Your task to perform on an android device: add a contact in the contacts app Image 0: 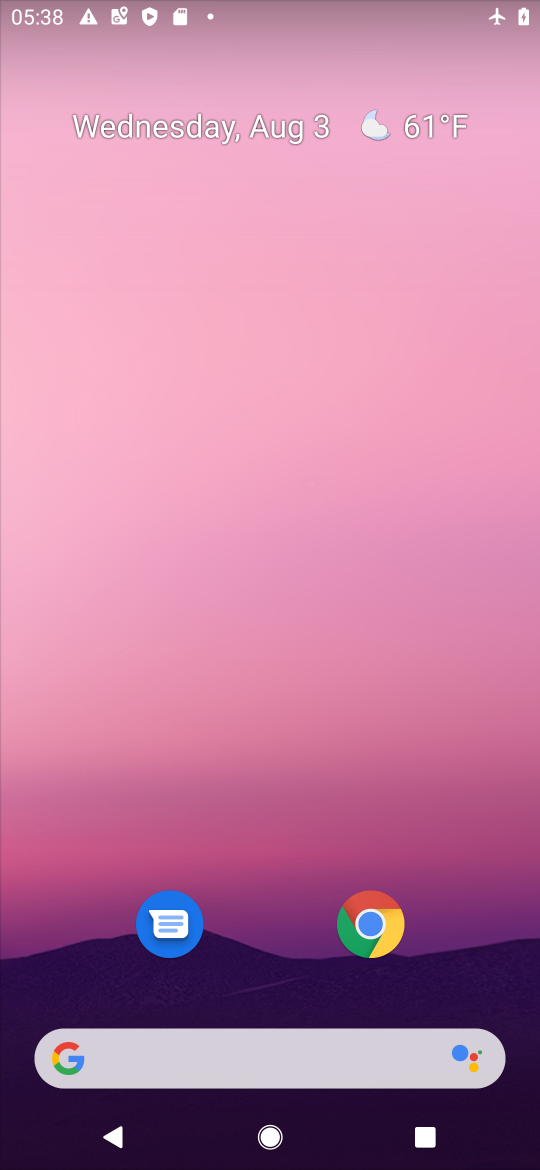
Step 0: drag from (243, 959) to (252, 269)
Your task to perform on an android device: add a contact in the contacts app Image 1: 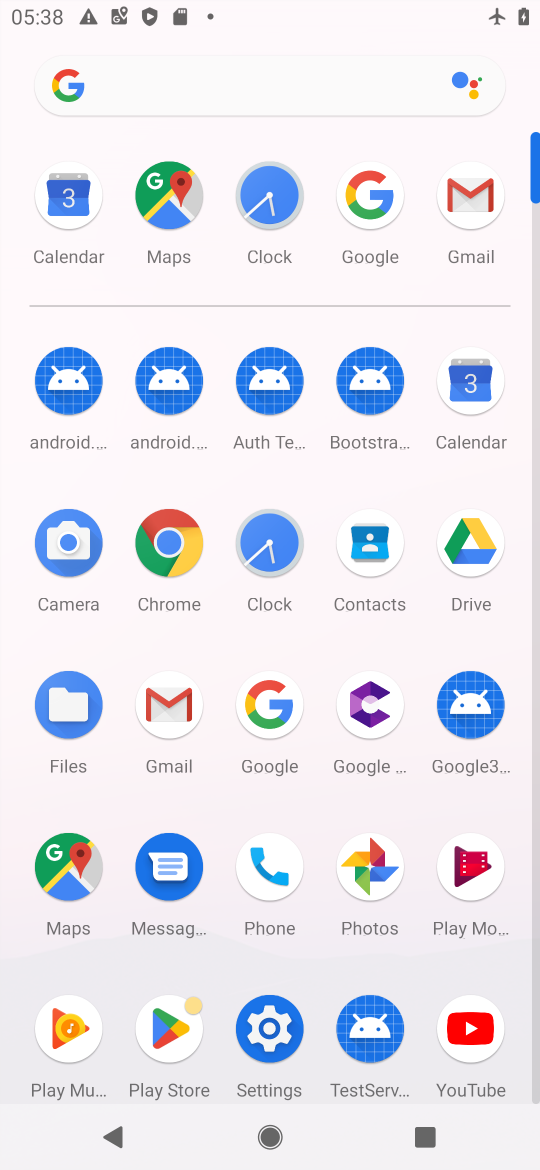
Step 1: click (356, 555)
Your task to perform on an android device: add a contact in the contacts app Image 2: 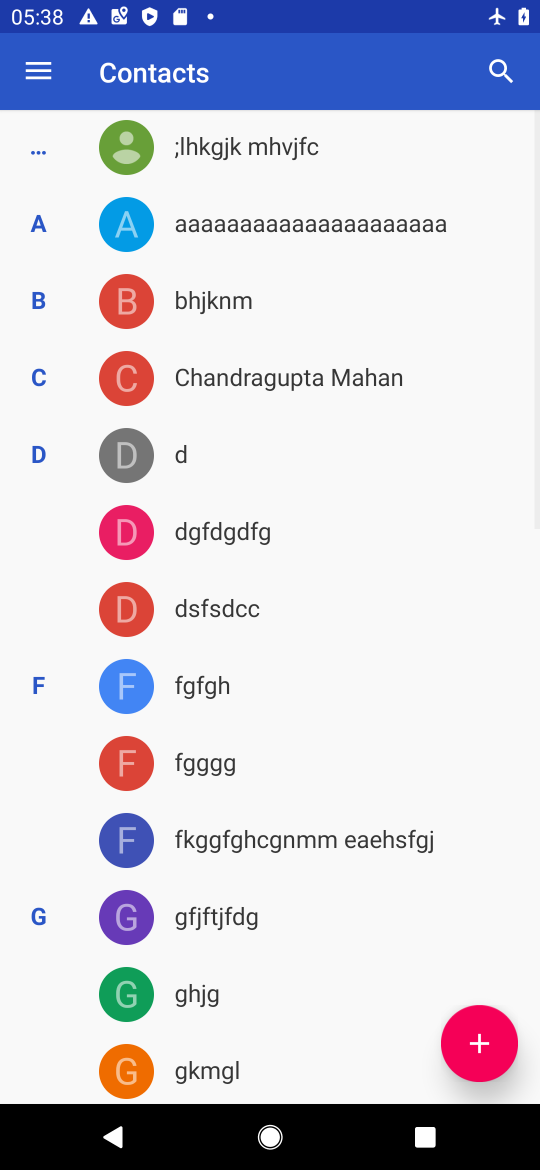
Step 2: click (468, 1045)
Your task to perform on an android device: add a contact in the contacts app Image 3: 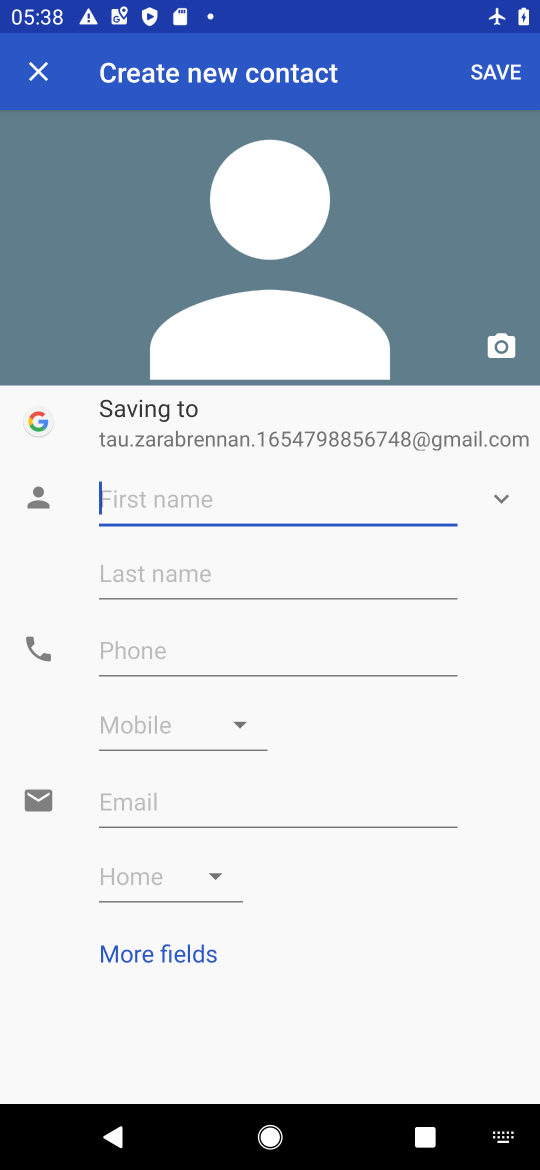
Step 3: type "fdsdsgdf"
Your task to perform on an android device: add a contact in the contacts app Image 4: 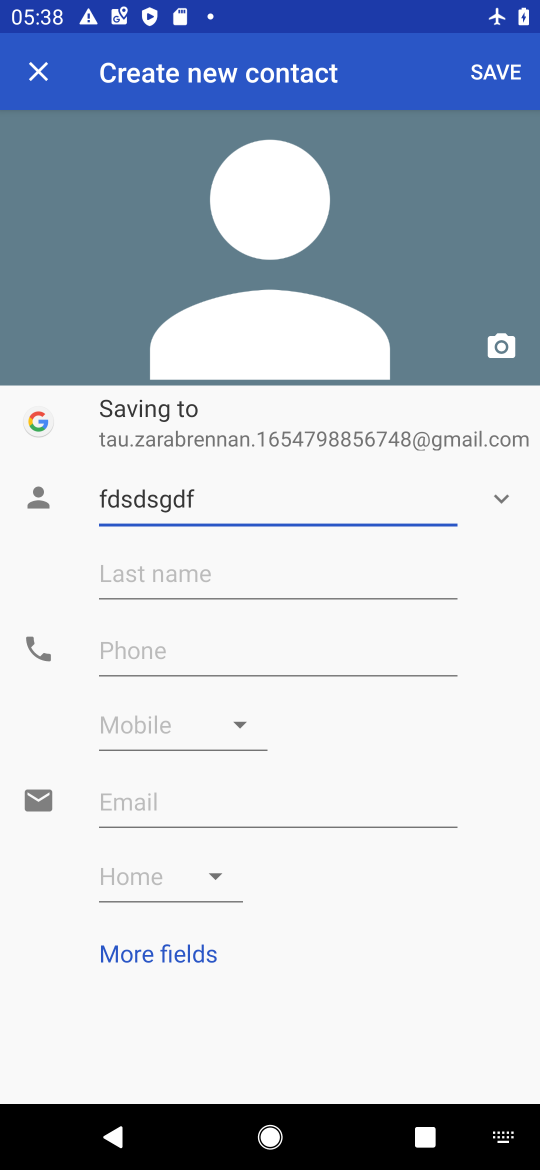
Step 4: click (142, 653)
Your task to perform on an android device: add a contact in the contacts app Image 5: 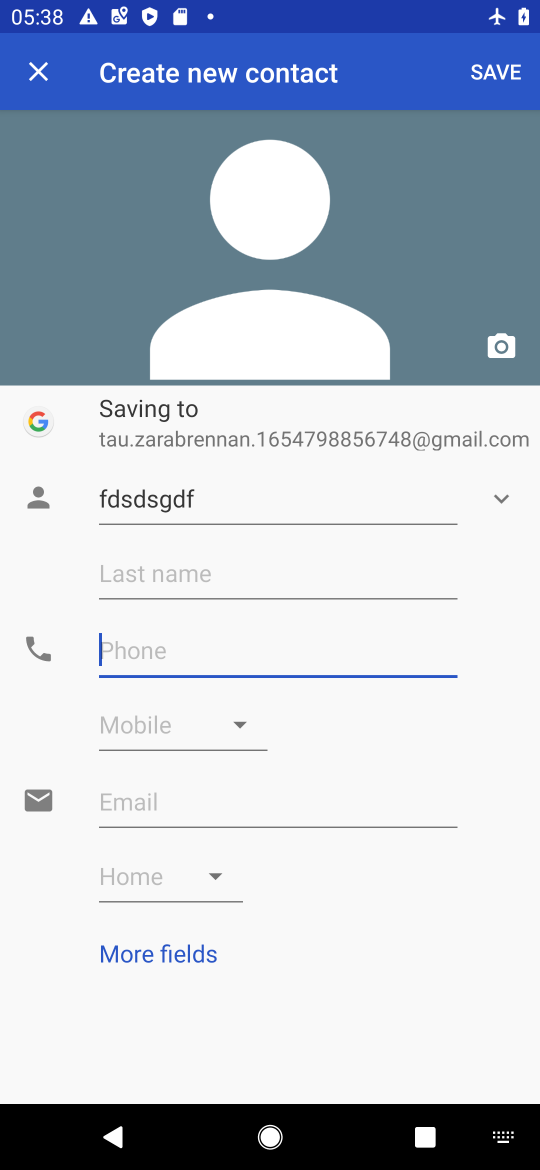
Step 5: type "86857456"
Your task to perform on an android device: add a contact in the contacts app Image 6: 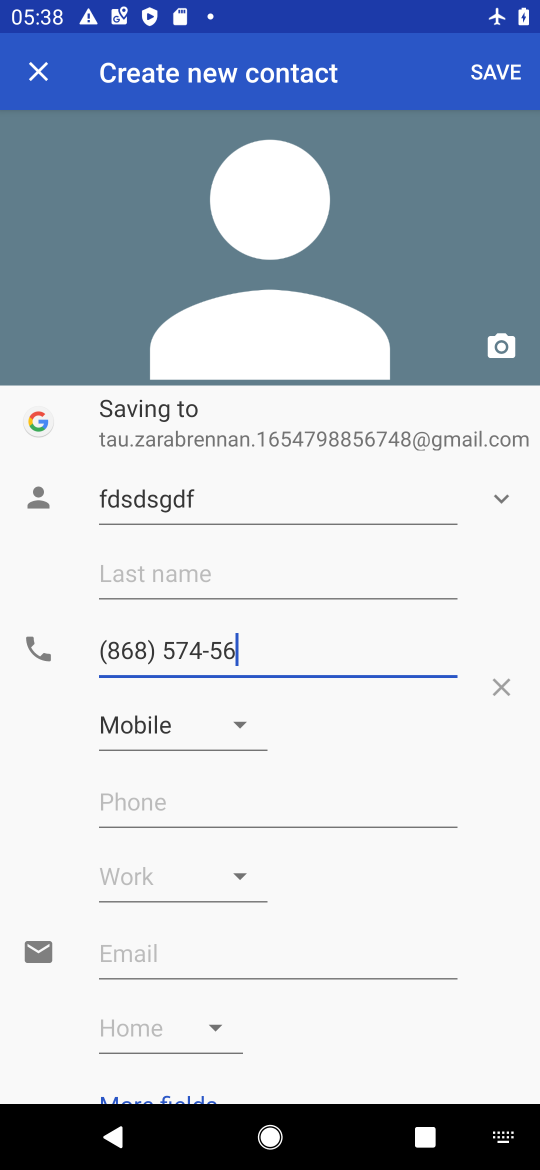
Step 6: click (487, 75)
Your task to perform on an android device: add a contact in the contacts app Image 7: 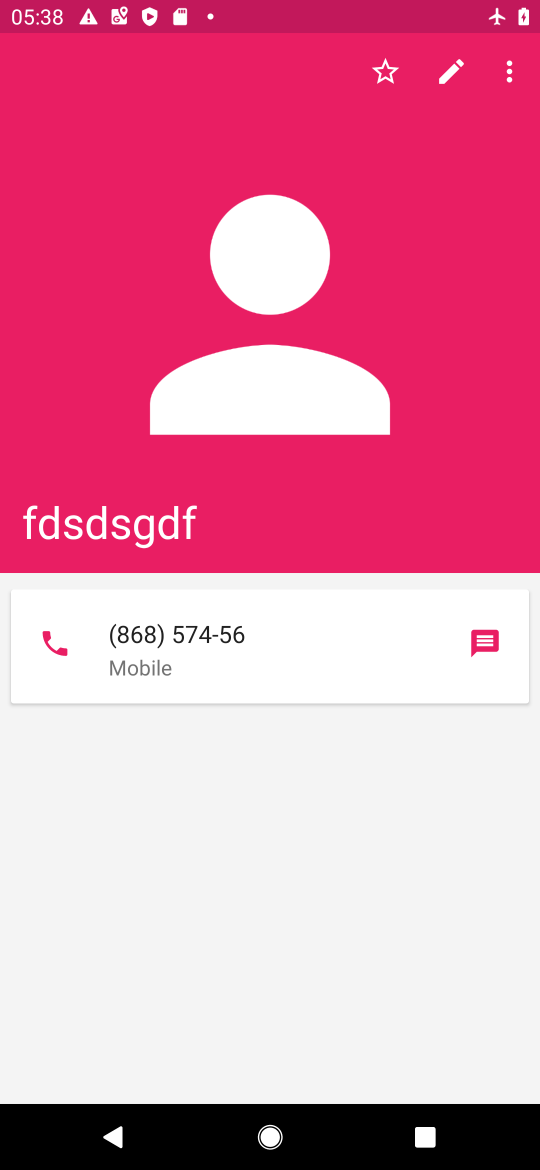
Step 7: task complete